Your task to perform on an android device: change timer sound Image 0: 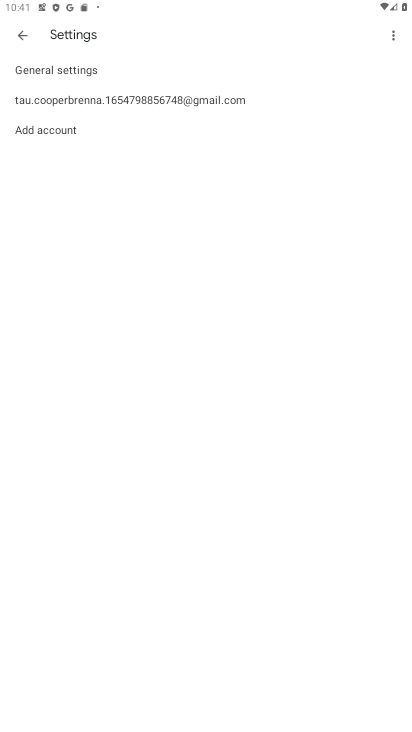
Step 0: press home button
Your task to perform on an android device: change timer sound Image 1: 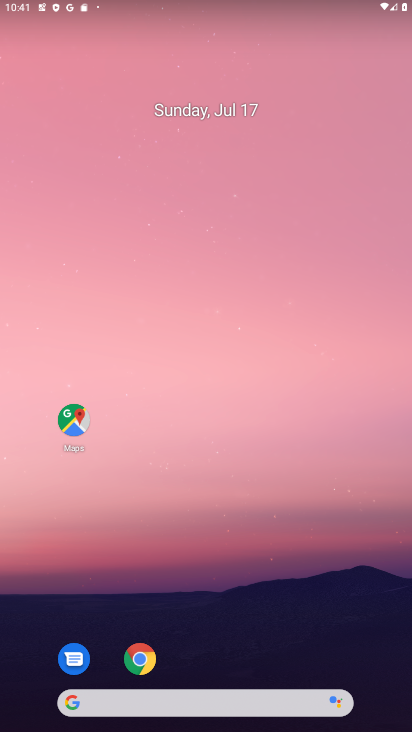
Step 1: drag from (197, 646) to (245, 366)
Your task to perform on an android device: change timer sound Image 2: 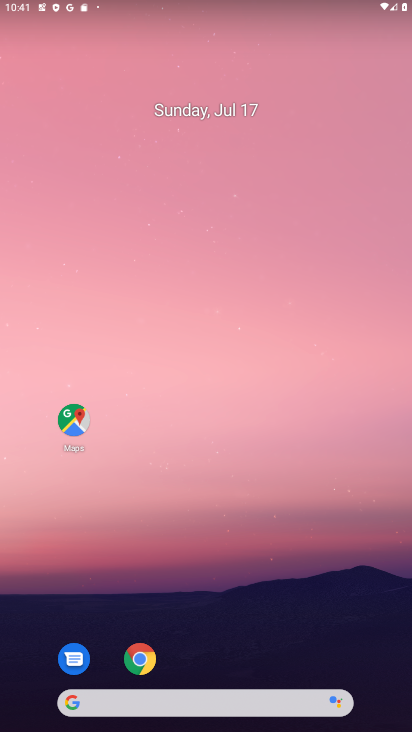
Step 2: drag from (180, 660) to (286, 75)
Your task to perform on an android device: change timer sound Image 3: 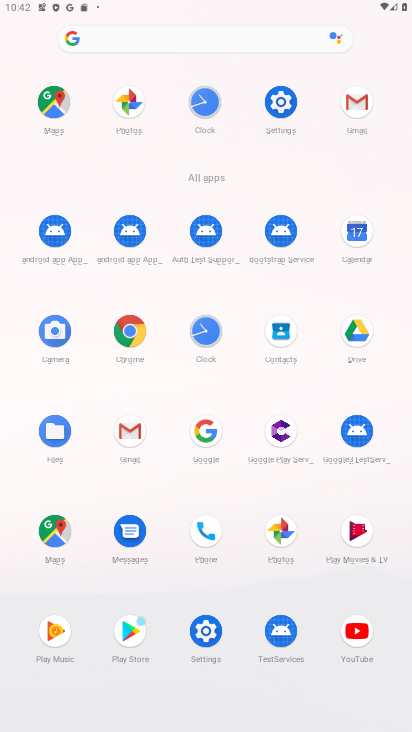
Step 3: click (201, 96)
Your task to perform on an android device: change timer sound Image 4: 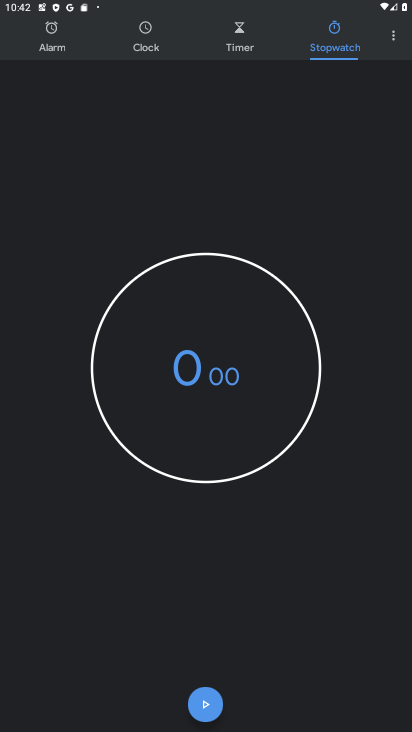
Step 4: click (385, 40)
Your task to perform on an android device: change timer sound Image 5: 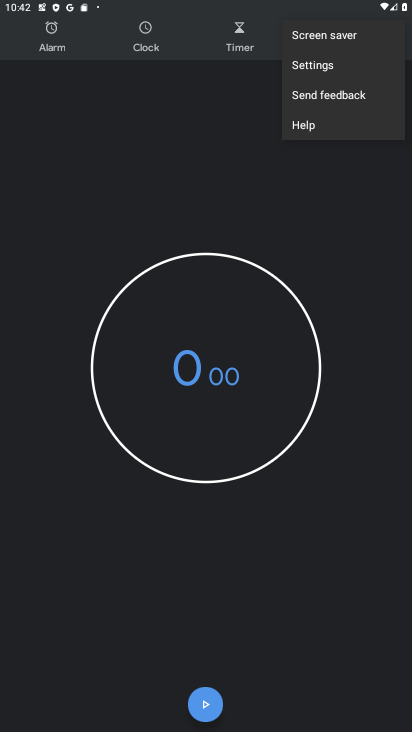
Step 5: click (347, 78)
Your task to perform on an android device: change timer sound Image 6: 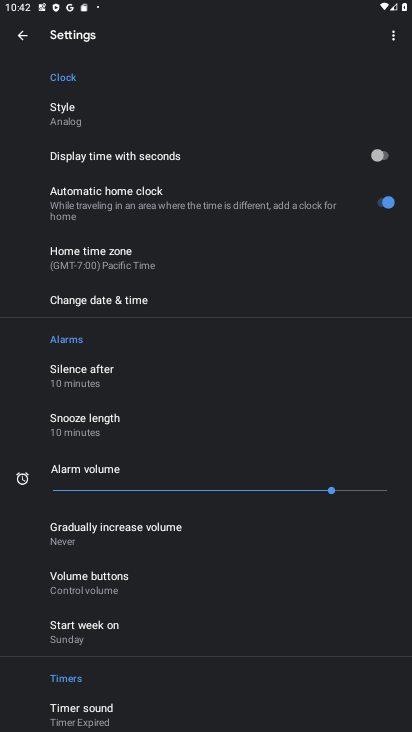
Step 6: click (385, 155)
Your task to perform on an android device: change timer sound Image 7: 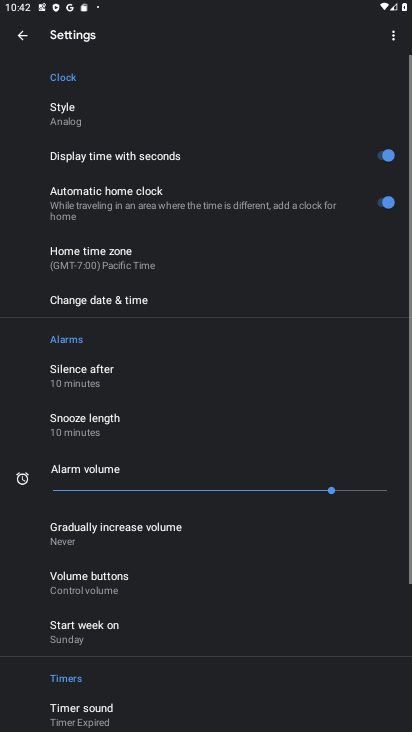
Step 7: task complete